Your task to perform on an android device: See recent photos Image 0: 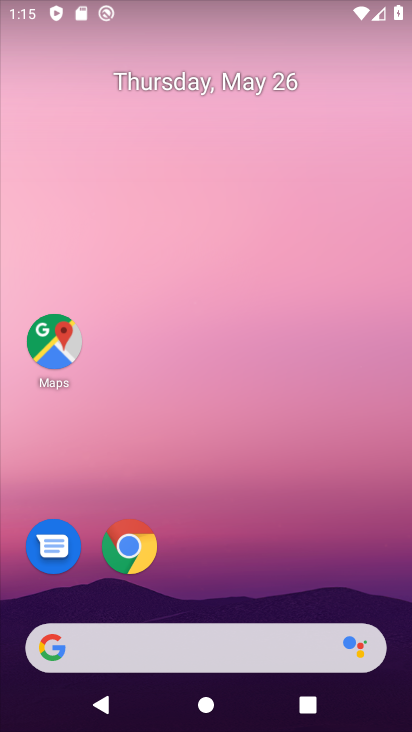
Step 0: drag from (259, 600) to (300, 182)
Your task to perform on an android device: See recent photos Image 1: 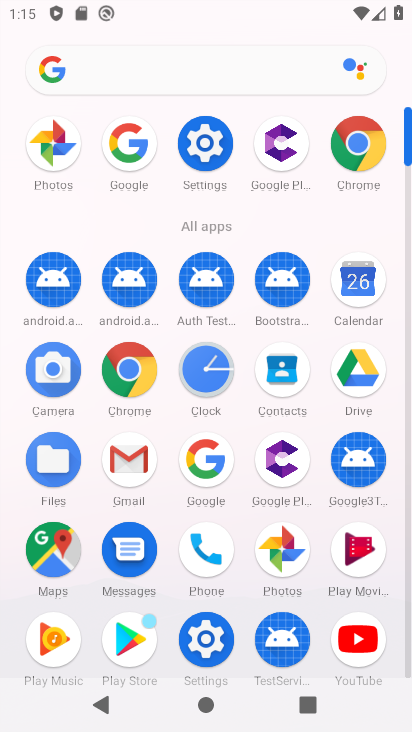
Step 1: click (51, 147)
Your task to perform on an android device: See recent photos Image 2: 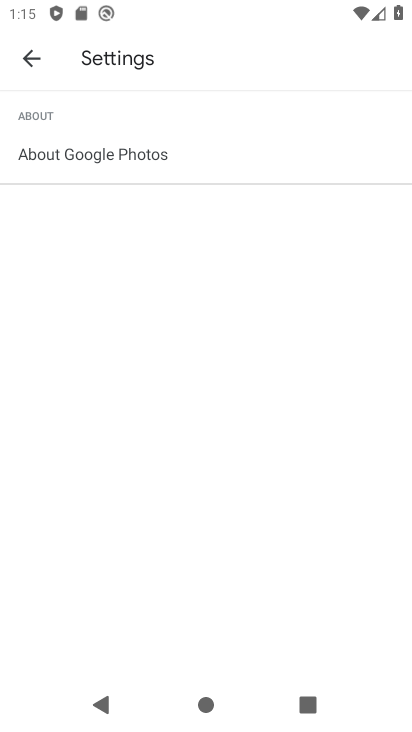
Step 2: press back button
Your task to perform on an android device: See recent photos Image 3: 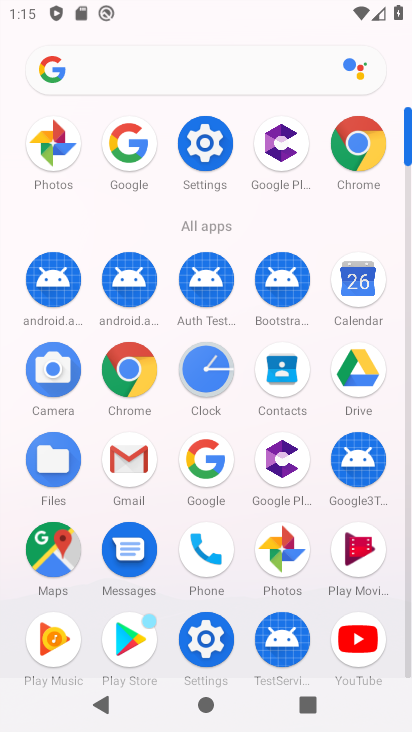
Step 3: click (55, 139)
Your task to perform on an android device: See recent photos Image 4: 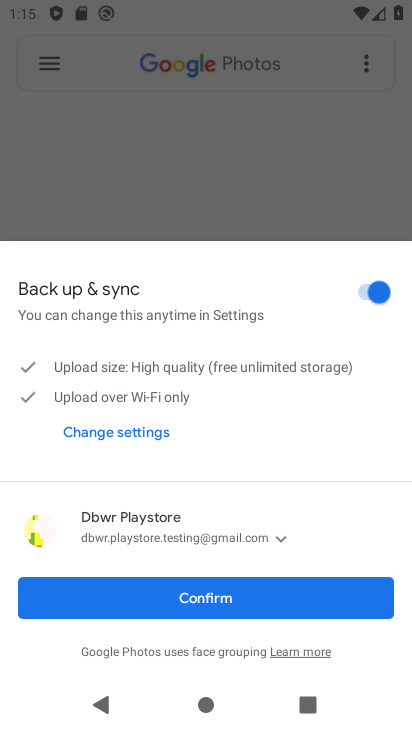
Step 4: click (175, 592)
Your task to perform on an android device: See recent photos Image 5: 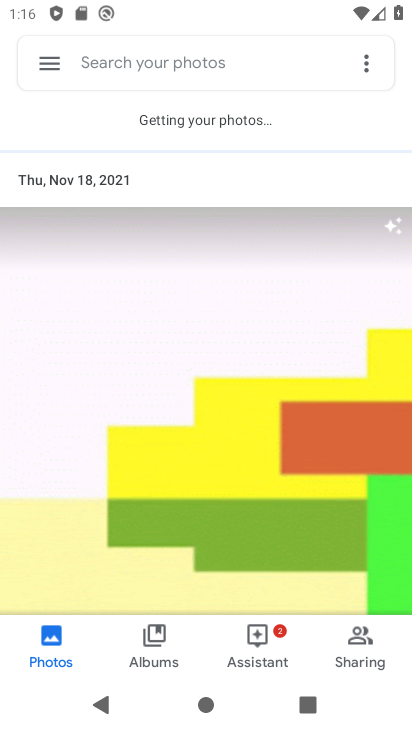
Step 5: task complete